Your task to perform on an android device: toggle location history Image 0: 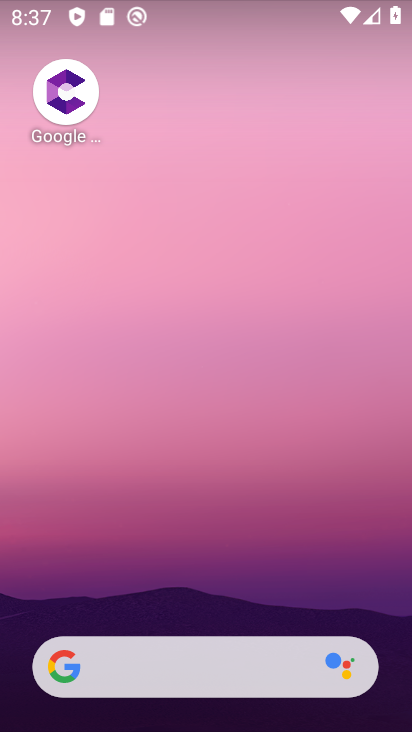
Step 0: drag from (211, 624) to (354, 41)
Your task to perform on an android device: toggle location history Image 1: 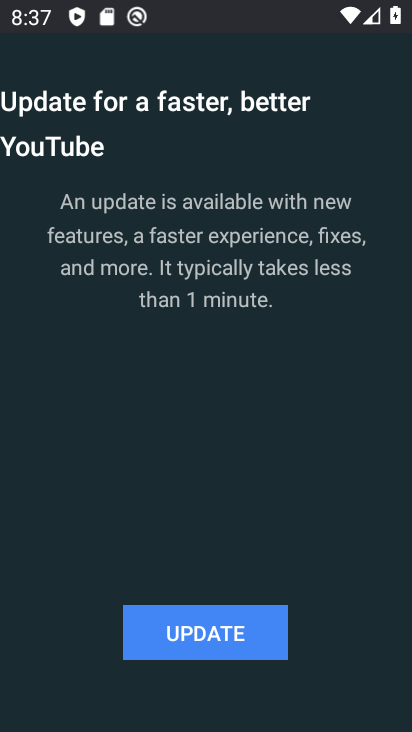
Step 1: press home button
Your task to perform on an android device: toggle location history Image 2: 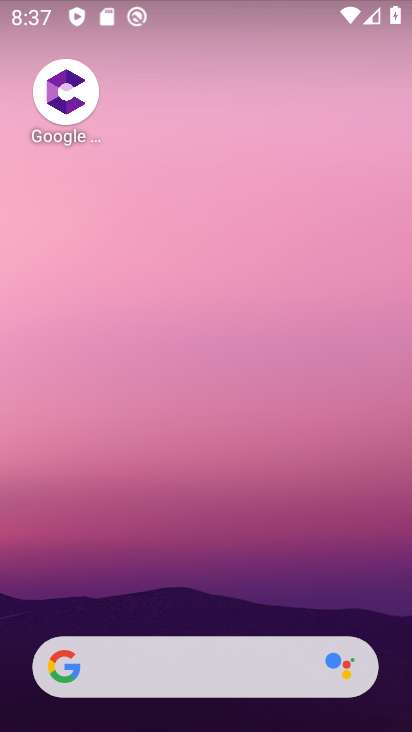
Step 2: drag from (225, 618) to (385, 19)
Your task to perform on an android device: toggle location history Image 3: 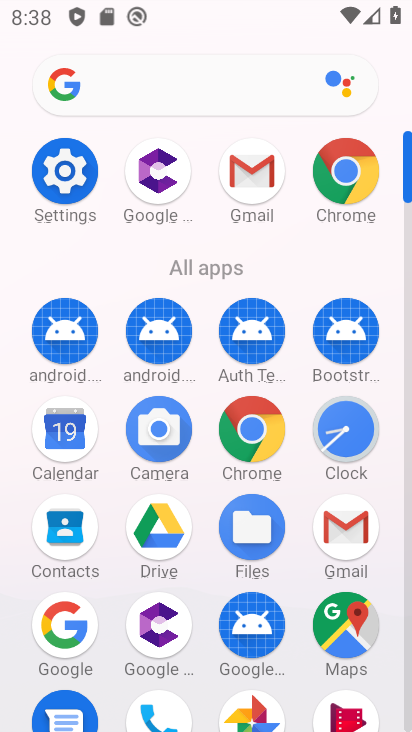
Step 3: click (70, 169)
Your task to perform on an android device: toggle location history Image 4: 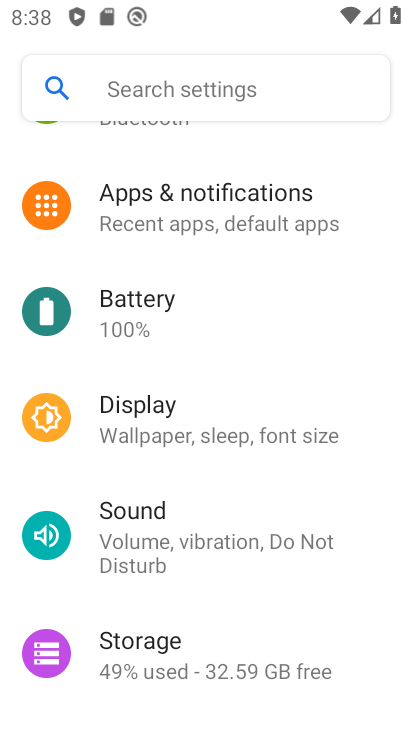
Step 4: drag from (165, 586) to (146, 170)
Your task to perform on an android device: toggle location history Image 5: 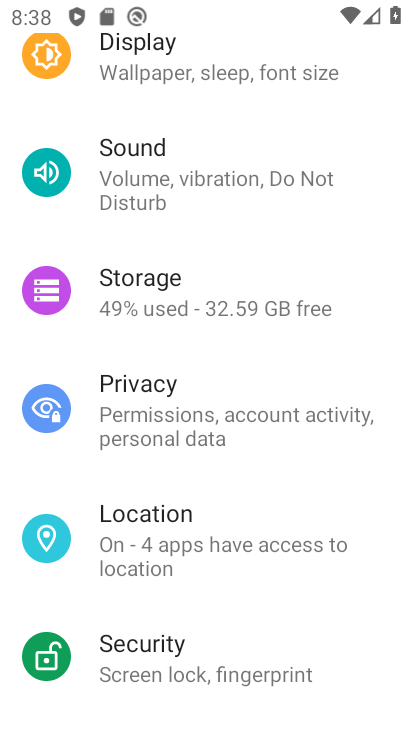
Step 5: click (152, 531)
Your task to perform on an android device: toggle location history Image 6: 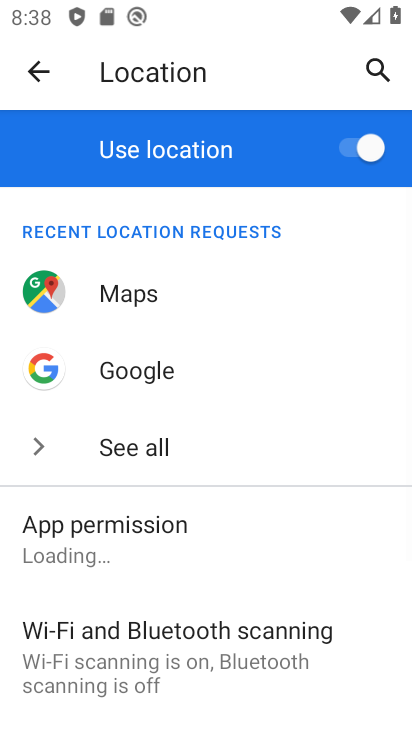
Step 6: drag from (140, 641) to (122, 252)
Your task to perform on an android device: toggle location history Image 7: 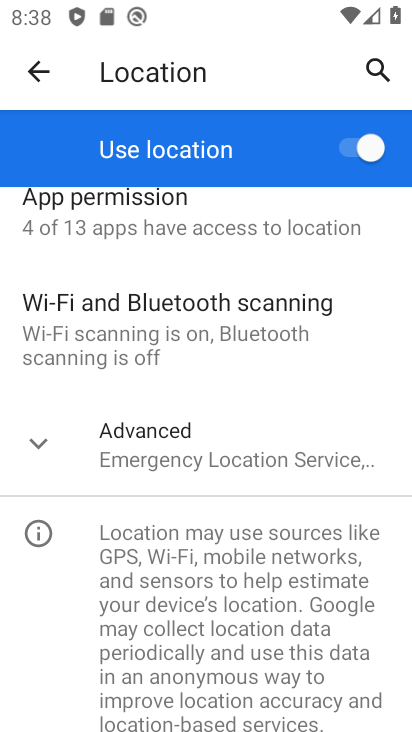
Step 7: click (139, 454)
Your task to perform on an android device: toggle location history Image 8: 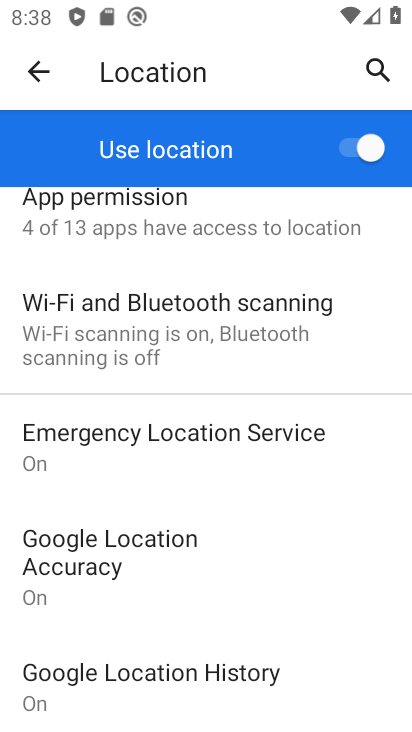
Step 8: click (84, 667)
Your task to perform on an android device: toggle location history Image 9: 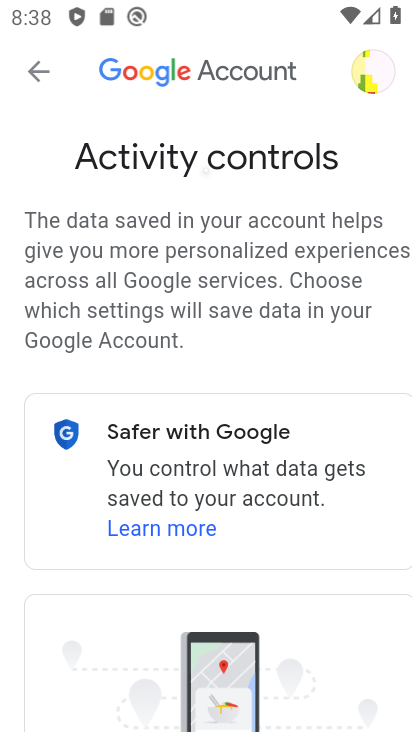
Step 9: drag from (225, 601) to (186, 124)
Your task to perform on an android device: toggle location history Image 10: 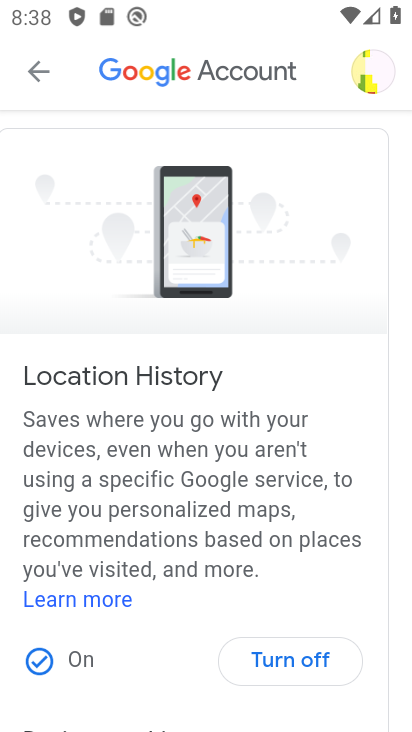
Step 10: click (274, 651)
Your task to perform on an android device: toggle location history Image 11: 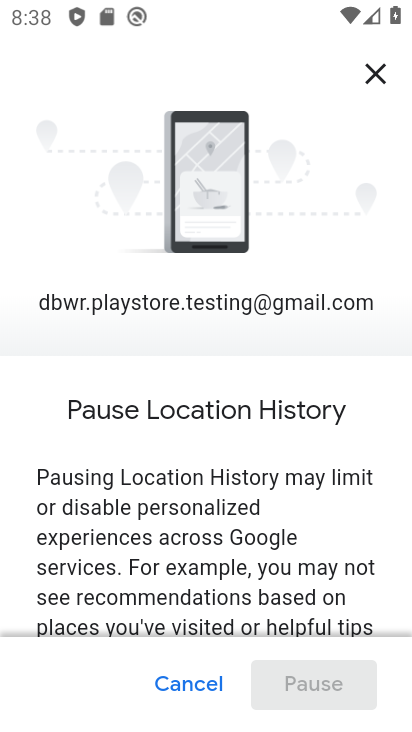
Step 11: drag from (291, 594) to (219, 132)
Your task to perform on an android device: toggle location history Image 12: 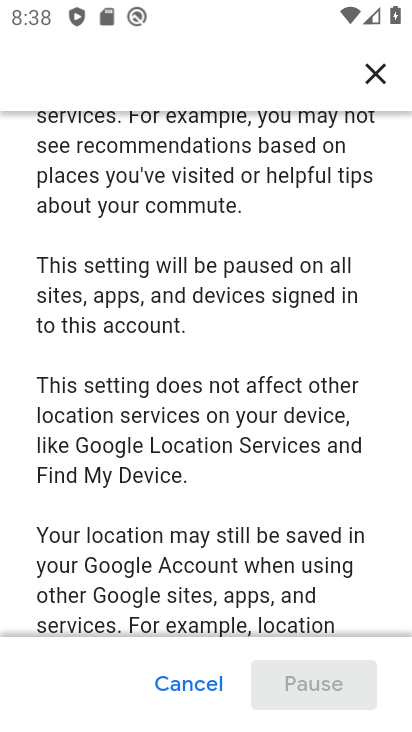
Step 12: drag from (213, 565) to (179, 99)
Your task to perform on an android device: toggle location history Image 13: 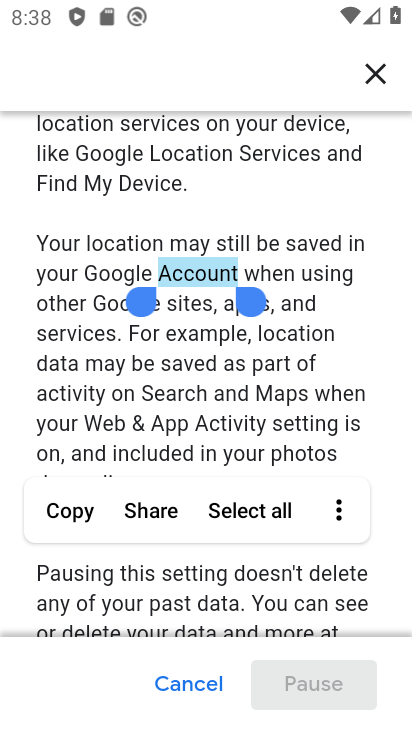
Step 13: drag from (268, 601) to (191, 107)
Your task to perform on an android device: toggle location history Image 14: 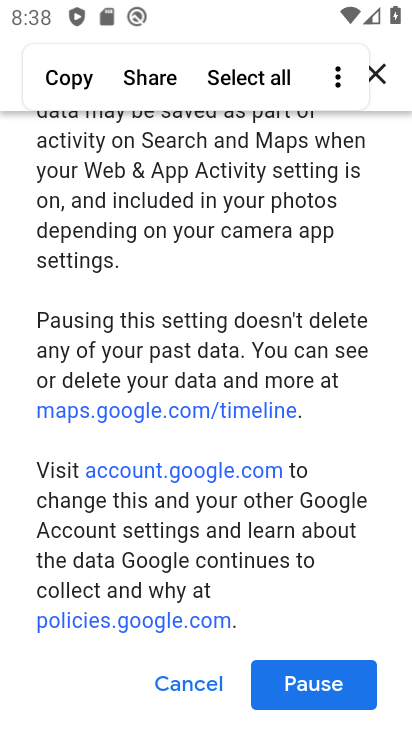
Step 14: click (316, 675)
Your task to perform on an android device: toggle location history Image 15: 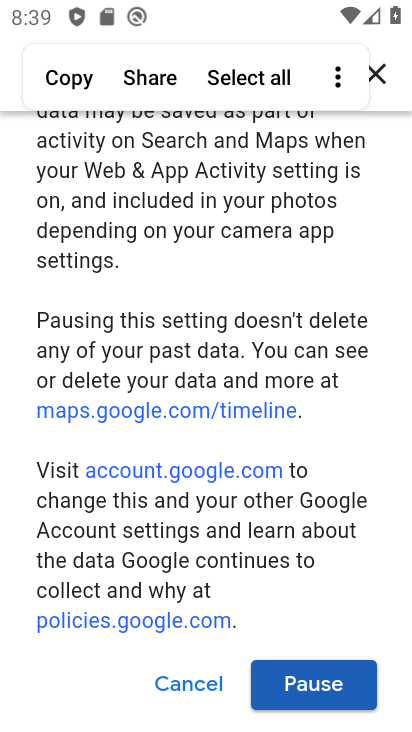
Step 15: click (325, 690)
Your task to perform on an android device: toggle location history Image 16: 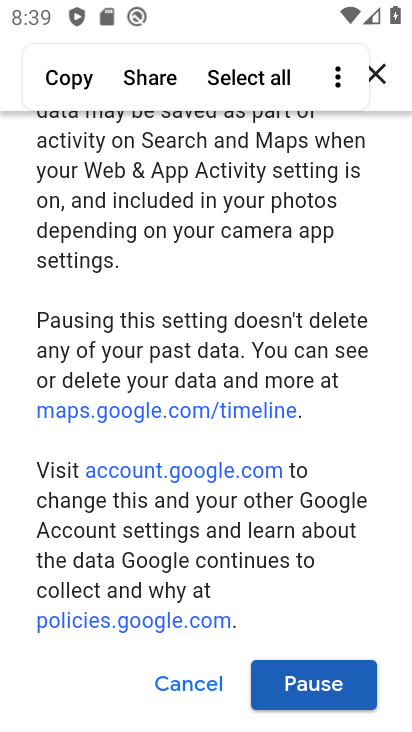
Step 16: click (338, 690)
Your task to perform on an android device: toggle location history Image 17: 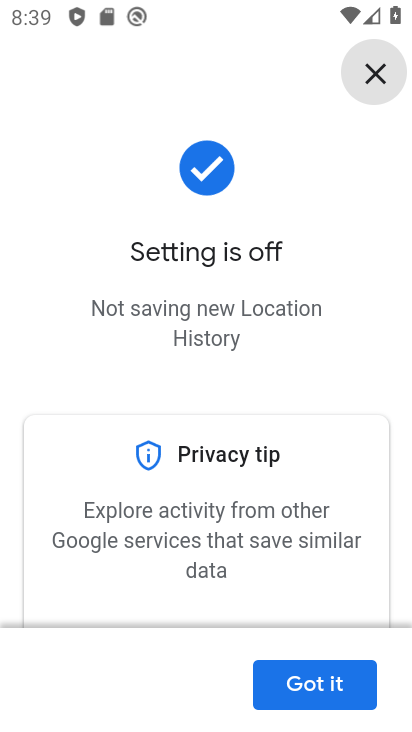
Step 17: click (304, 673)
Your task to perform on an android device: toggle location history Image 18: 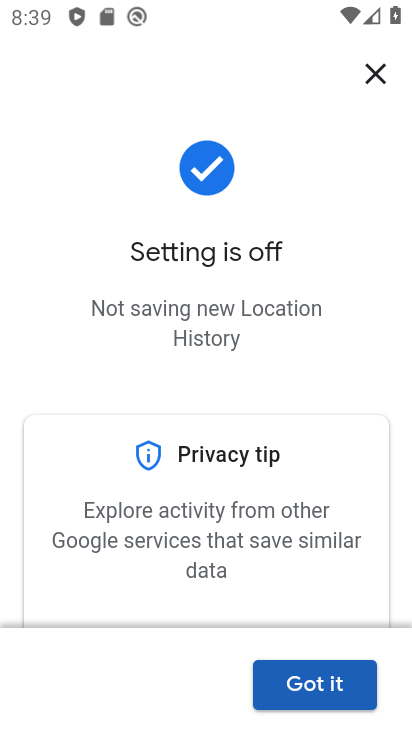
Step 18: task complete